Your task to perform on an android device: make emails show in primary in the gmail app Image 0: 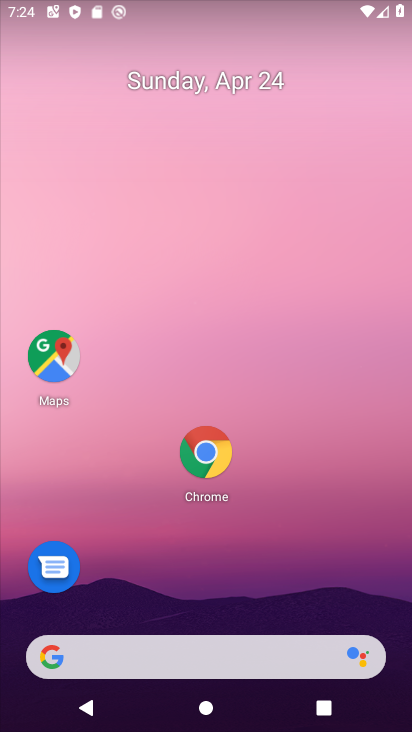
Step 0: drag from (369, 547) to (405, 152)
Your task to perform on an android device: make emails show in primary in the gmail app Image 1: 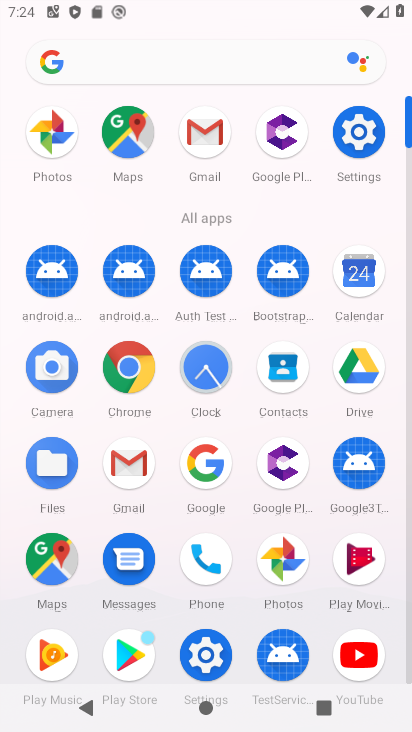
Step 1: click (198, 128)
Your task to perform on an android device: make emails show in primary in the gmail app Image 2: 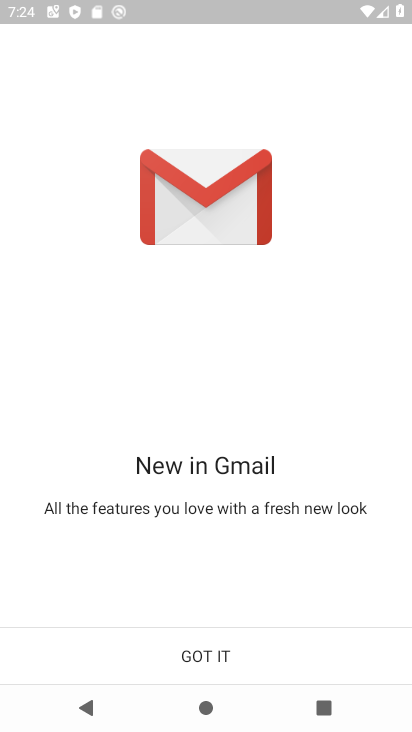
Step 2: click (207, 655)
Your task to perform on an android device: make emails show in primary in the gmail app Image 3: 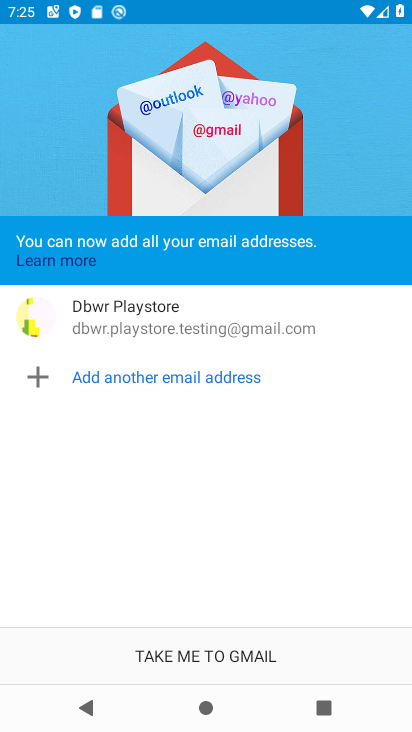
Step 3: click (207, 655)
Your task to perform on an android device: make emails show in primary in the gmail app Image 4: 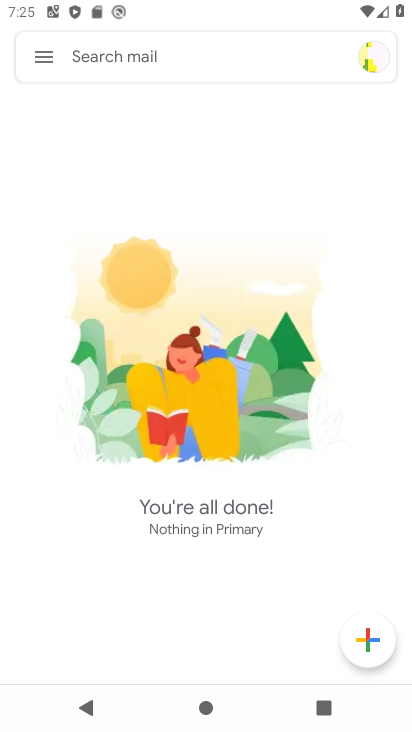
Step 4: click (39, 54)
Your task to perform on an android device: make emails show in primary in the gmail app Image 5: 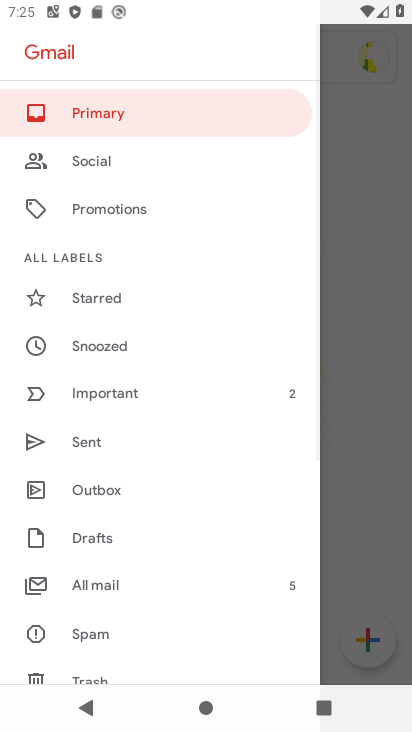
Step 5: drag from (178, 522) to (181, 134)
Your task to perform on an android device: make emails show in primary in the gmail app Image 6: 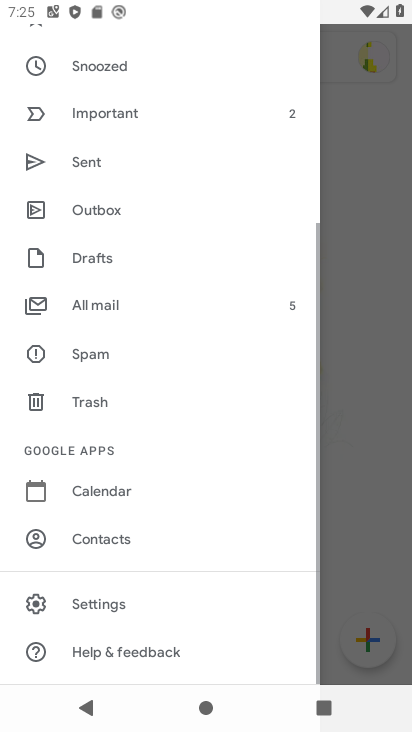
Step 6: click (116, 610)
Your task to perform on an android device: make emails show in primary in the gmail app Image 7: 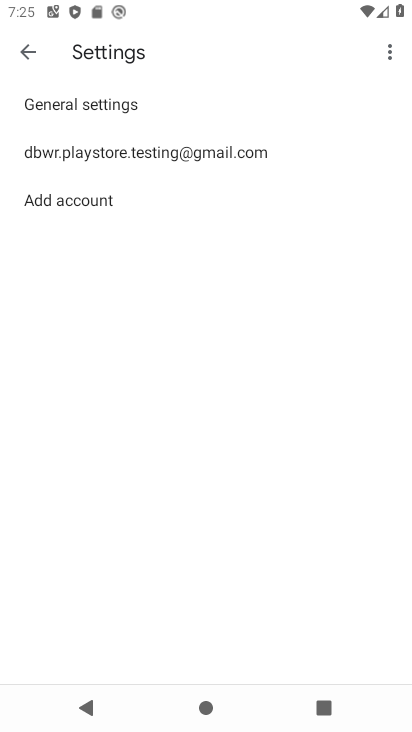
Step 7: click (44, 152)
Your task to perform on an android device: make emails show in primary in the gmail app Image 8: 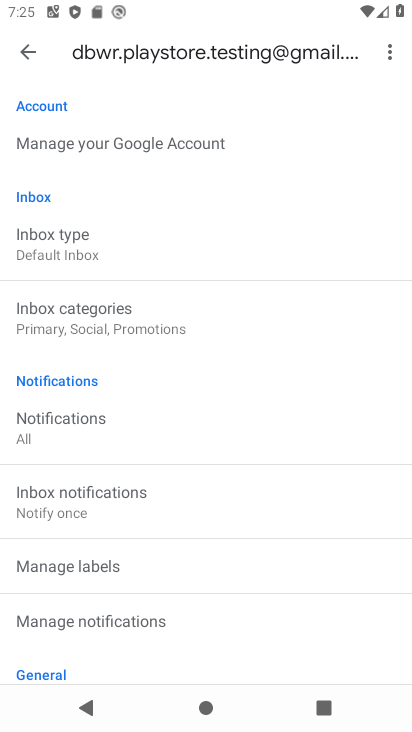
Step 8: task complete